Your task to perform on an android device: make emails show in primary in the gmail app Image 0: 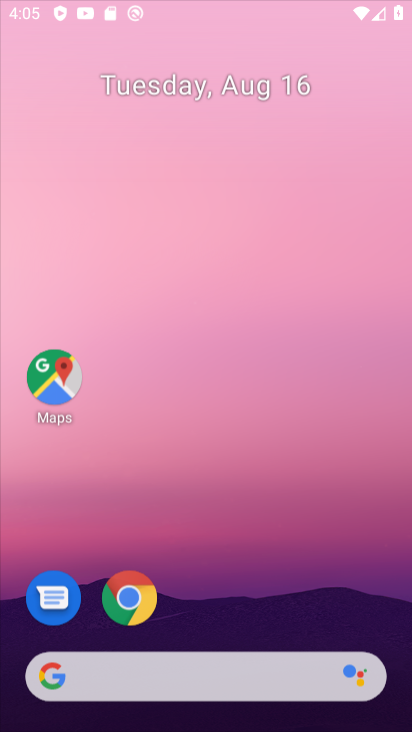
Step 0: press home button
Your task to perform on an android device: make emails show in primary in the gmail app Image 1: 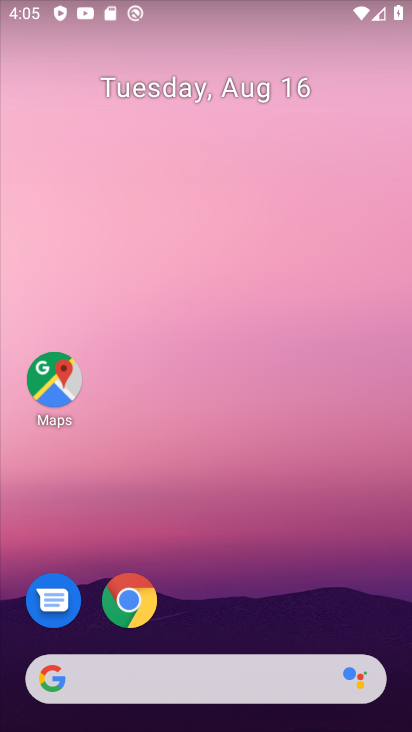
Step 1: drag from (231, 639) to (236, 143)
Your task to perform on an android device: make emails show in primary in the gmail app Image 2: 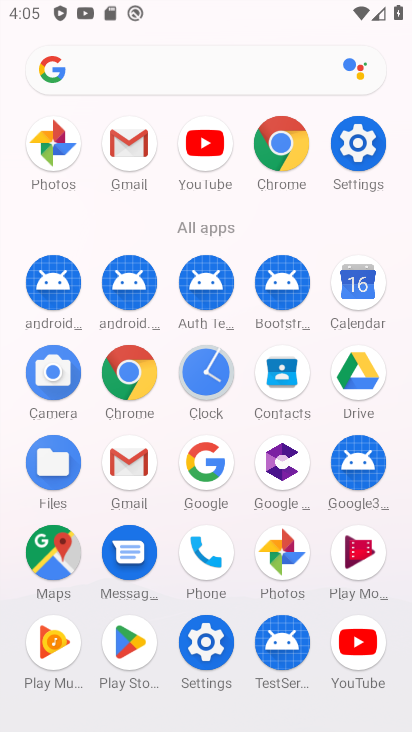
Step 2: click (133, 466)
Your task to perform on an android device: make emails show in primary in the gmail app Image 3: 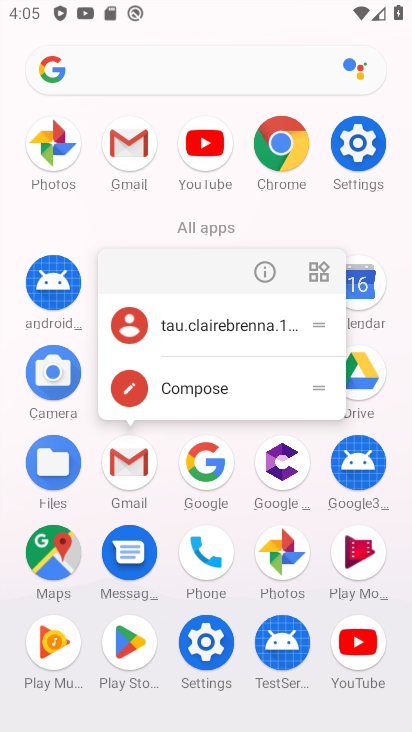
Step 3: click (137, 479)
Your task to perform on an android device: make emails show in primary in the gmail app Image 4: 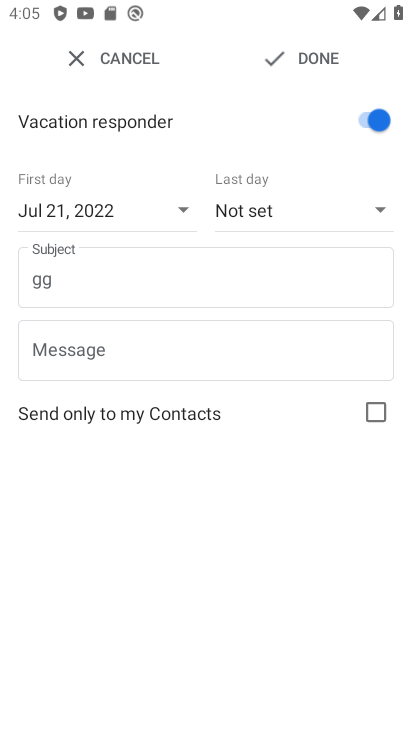
Step 4: press back button
Your task to perform on an android device: make emails show in primary in the gmail app Image 5: 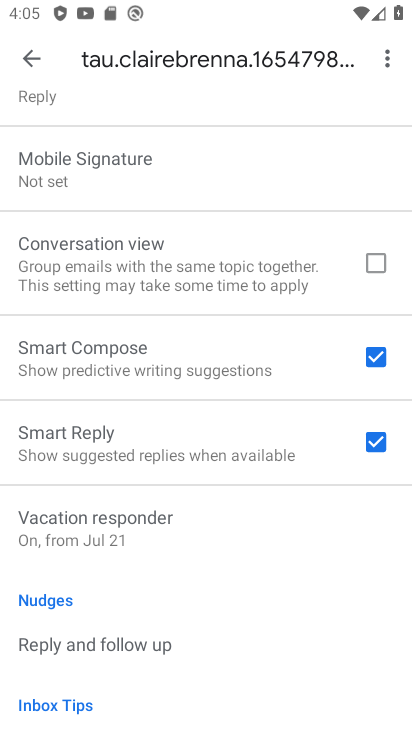
Step 5: drag from (225, 559) to (208, 725)
Your task to perform on an android device: make emails show in primary in the gmail app Image 6: 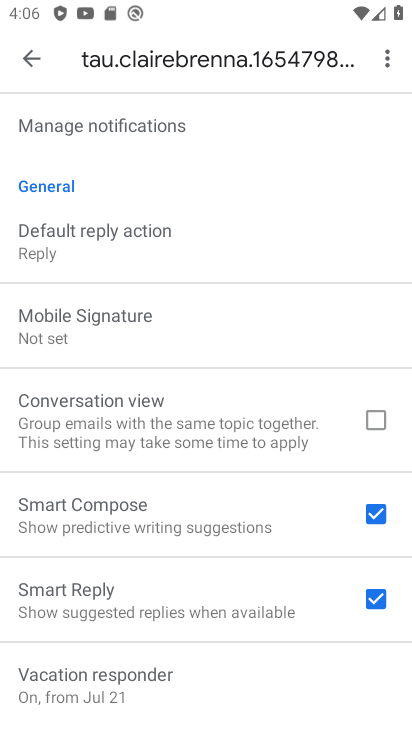
Step 6: drag from (137, 189) to (139, 582)
Your task to perform on an android device: make emails show in primary in the gmail app Image 7: 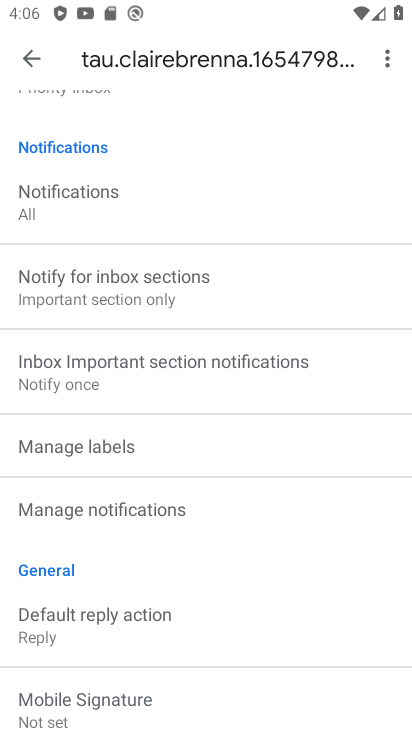
Step 7: drag from (173, 182) to (176, 564)
Your task to perform on an android device: make emails show in primary in the gmail app Image 8: 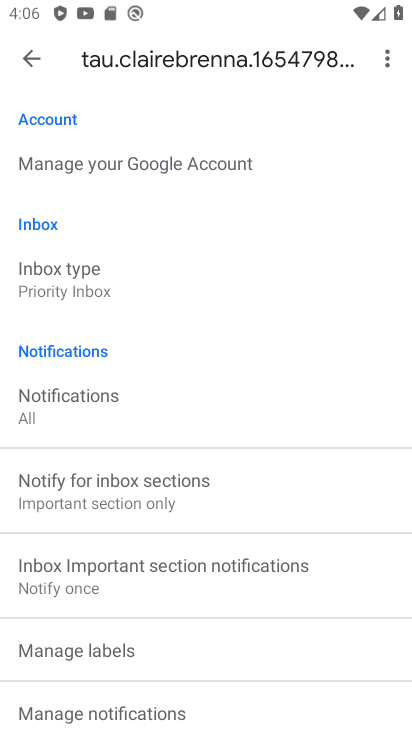
Step 8: click (96, 295)
Your task to perform on an android device: make emails show in primary in the gmail app Image 9: 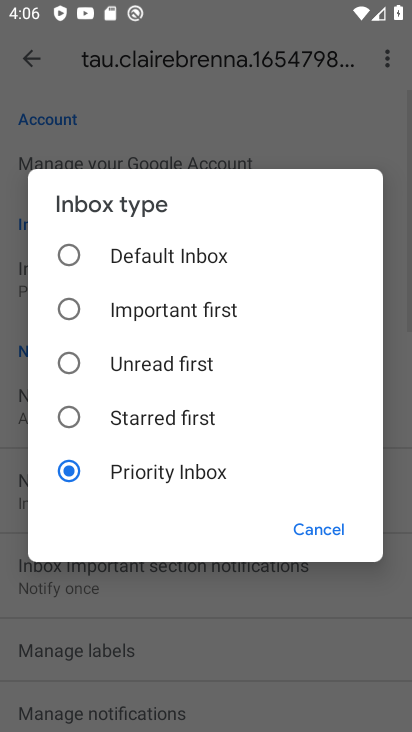
Step 9: click (133, 259)
Your task to perform on an android device: make emails show in primary in the gmail app Image 10: 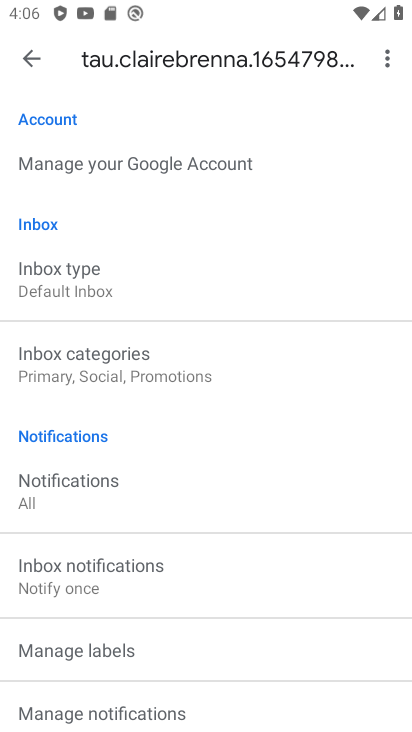
Step 10: click (73, 360)
Your task to perform on an android device: make emails show in primary in the gmail app Image 11: 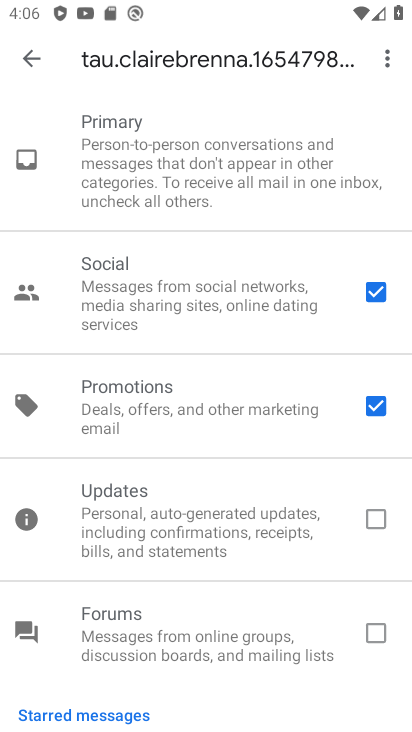
Step 11: click (370, 294)
Your task to perform on an android device: make emails show in primary in the gmail app Image 12: 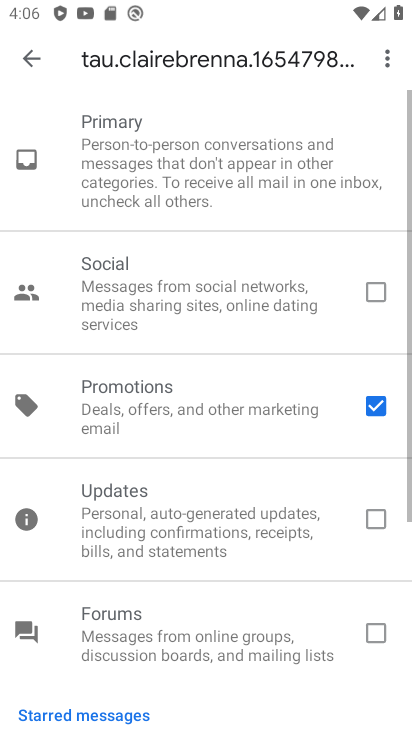
Step 12: click (366, 406)
Your task to perform on an android device: make emails show in primary in the gmail app Image 13: 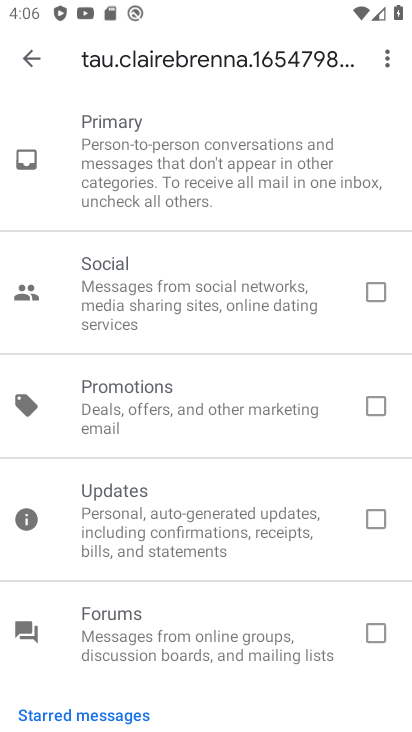
Step 13: task complete